Your task to perform on an android device: clear all cookies in the chrome app Image 0: 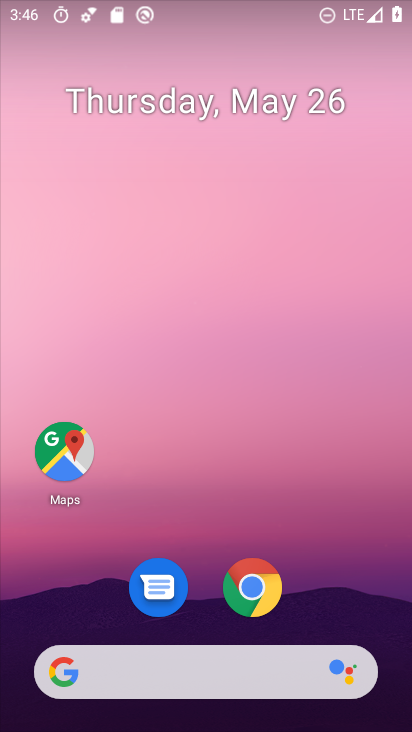
Step 0: drag from (351, 586) to (345, 155)
Your task to perform on an android device: clear all cookies in the chrome app Image 1: 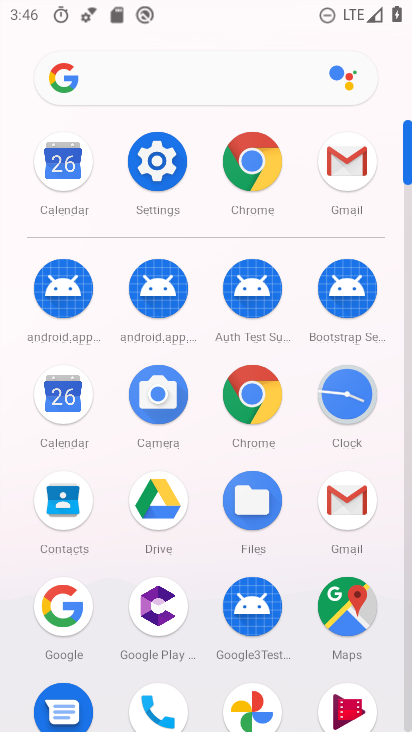
Step 1: click (251, 384)
Your task to perform on an android device: clear all cookies in the chrome app Image 2: 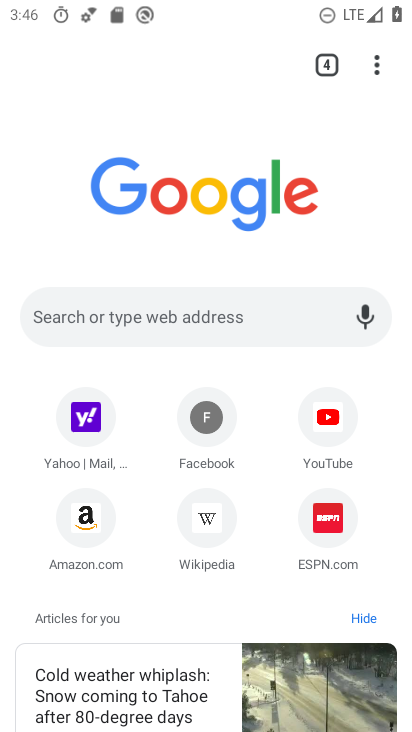
Step 2: click (379, 62)
Your task to perform on an android device: clear all cookies in the chrome app Image 3: 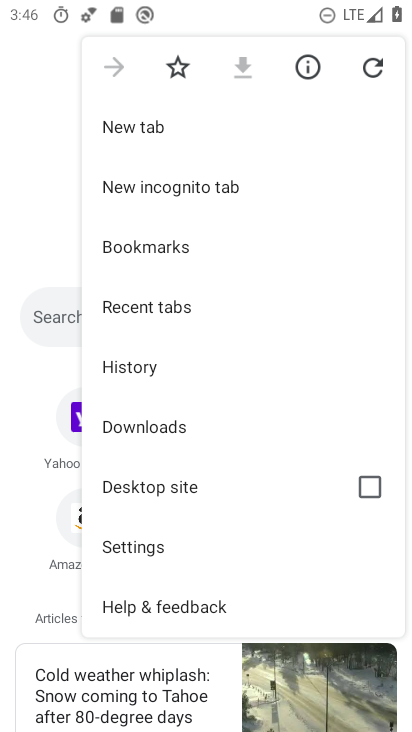
Step 3: click (154, 357)
Your task to perform on an android device: clear all cookies in the chrome app Image 4: 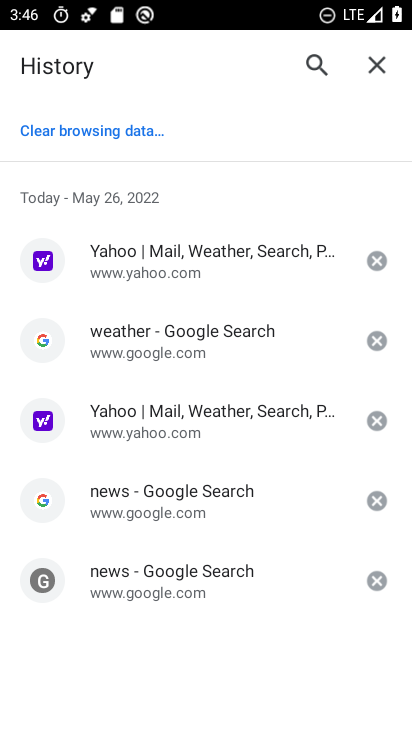
Step 4: click (107, 131)
Your task to perform on an android device: clear all cookies in the chrome app Image 5: 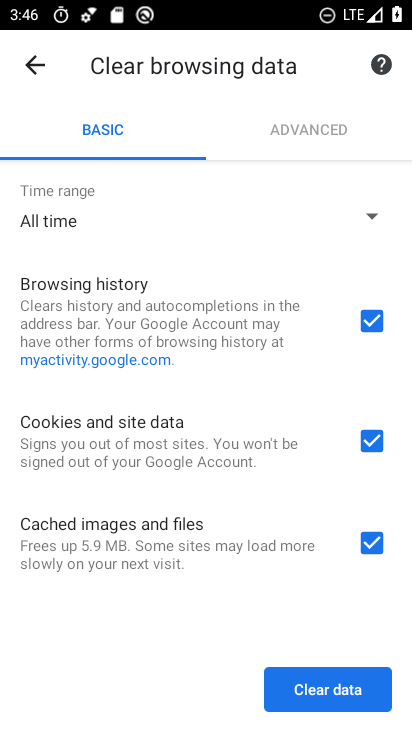
Step 5: click (350, 695)
Your task to perform on an android device: clear all cookies in the chrome app Image 6: 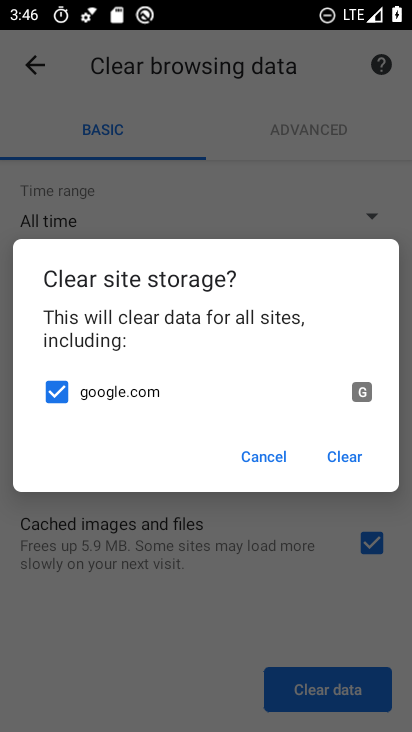
Step 6: click (362, 458)
Your task to perform on an android device: clear all cookies in the chrome app Image 7: 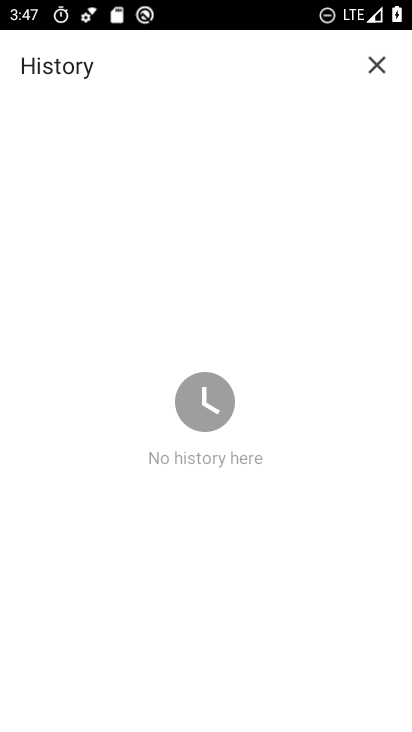
Step 7: task complete